Your task to perform on an android device: Open maps Image 0: 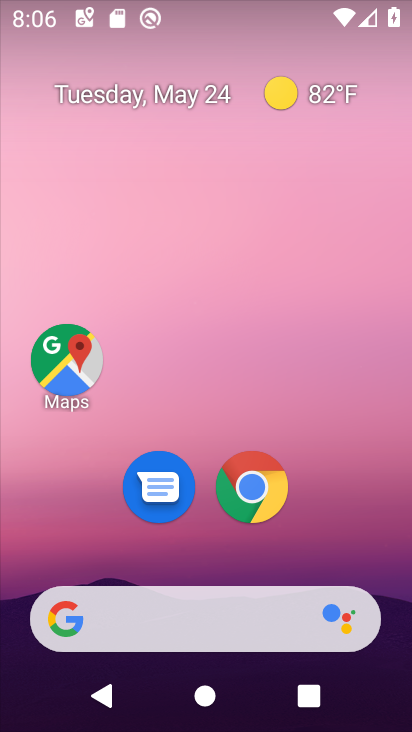
Step 0: drag from (328, 539) to (370, 110)
Your task to perform on an android device: Open maps Image 1: 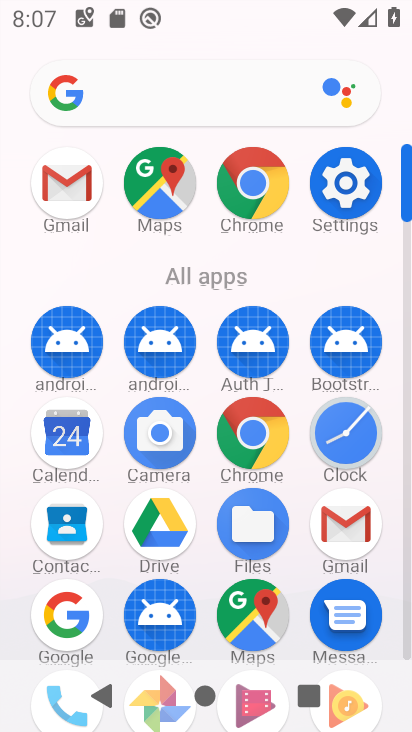
Step 1: click (247, 603)
Your task to perform on an android device: Open maps Image 2: 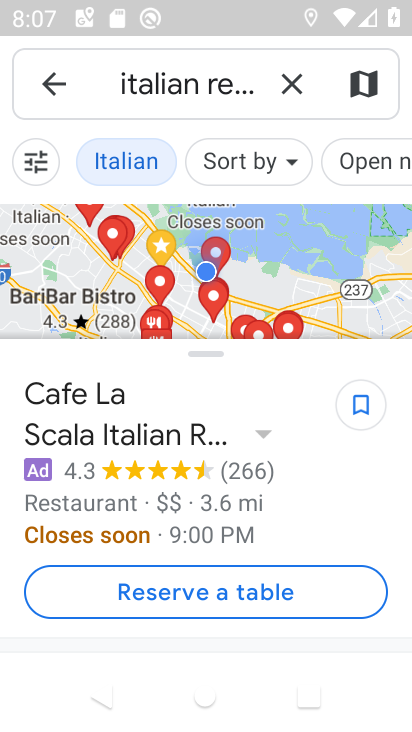
Step 2: task complete